Your task to perform on an android device: Go to Yahoo.com Image 0: 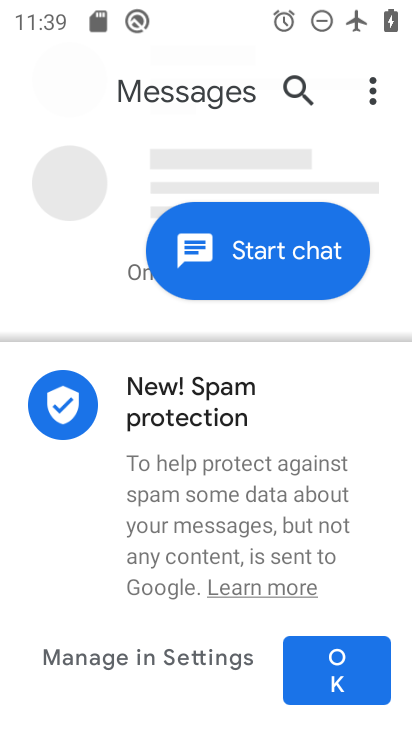
Step 0: press home button
Your task to perform on an android device: Go to Yahoo.com Image 1: 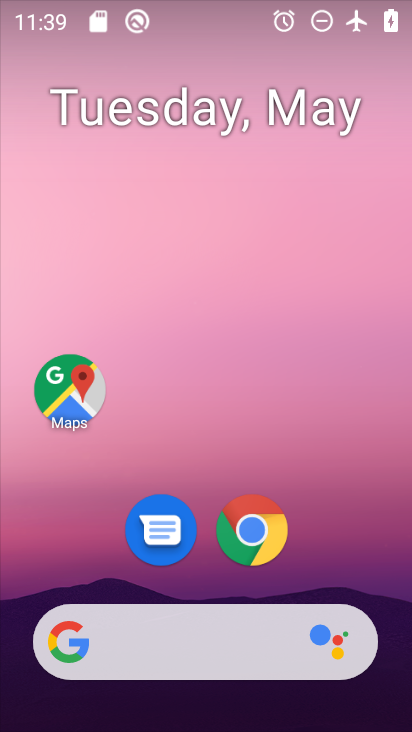
Step 1: click (249, 533)
Your task to perform on an android device: Go to Yahoo.com Image 2: 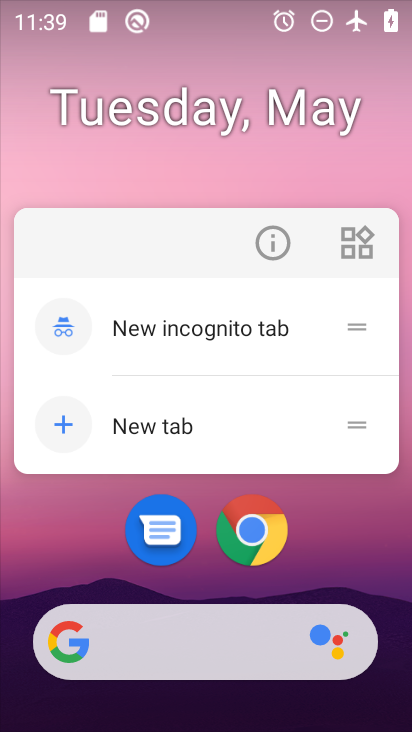
Step 2: click (248, 532)
Your task to perform on an android device: Go to Yahoo.com Image 3: 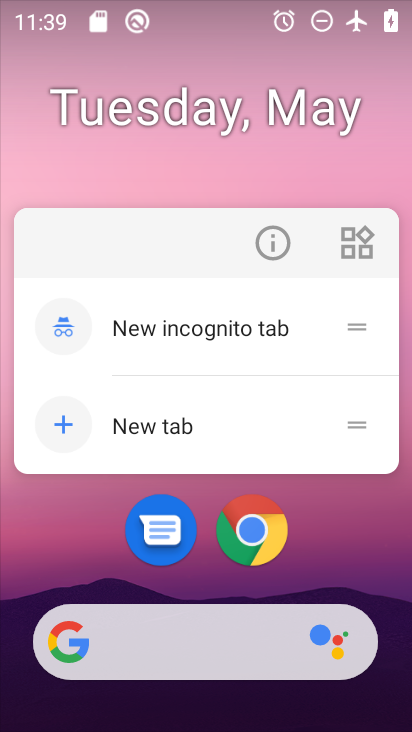
Step 3: click (355, 571)
Your task to perform on an android device: Go to Yahoo.com Image 4: 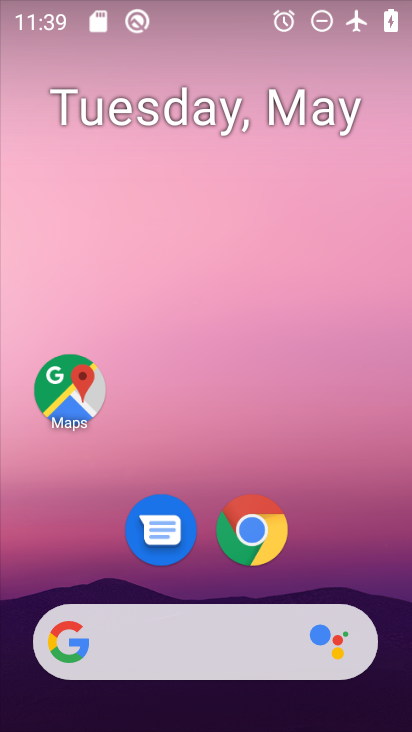
Step 4: drag from (345, 553) to (357, 85)
Your task to perform on an android device: Go to Yahoo.com Image 5: 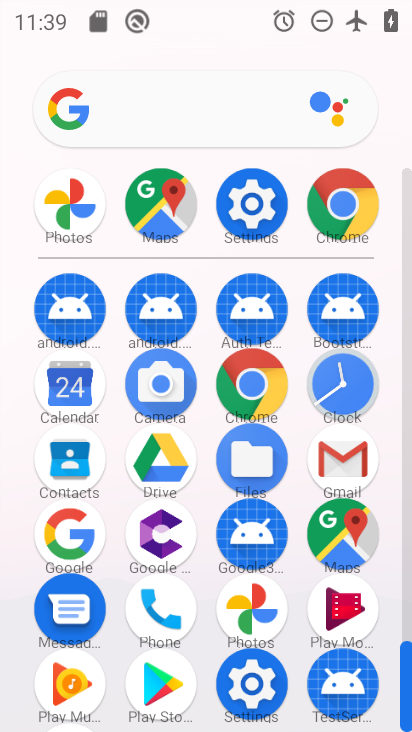
Step 5: click (242, 388)
Your task to perform on an android device: Go to Yahoo.com Image 6: 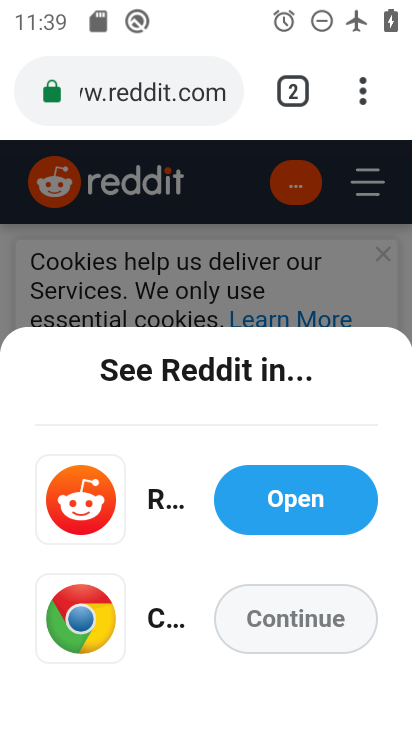
Step 6: click (164, 80)
Your task to perform on an android device: Go to Yahoo.com Image 7: 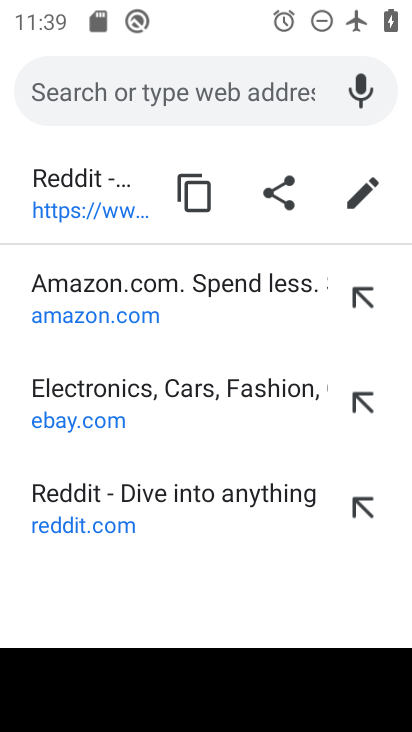
Step 7: type "yahoo.com"
Your task to perform on an android device: Go to Yahoo.com Image 8: 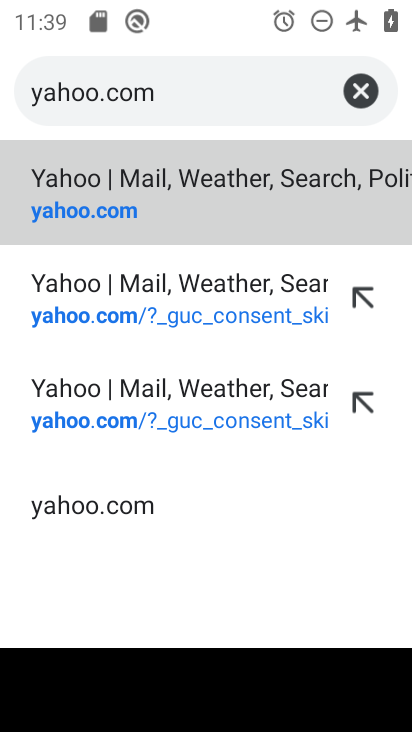
Step 8: click (103, 211)
Your task to perform on an android device: Go to Yahoo.com Image 9: 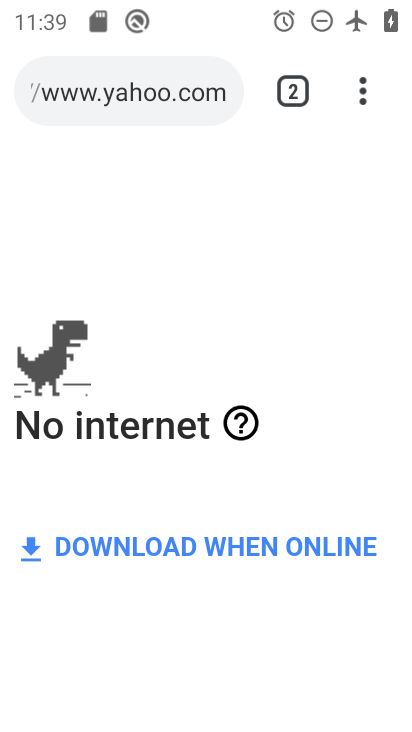
Step 9: task complete